Your task to perform on an android device: turn on priority inbox in the gmail app Image 0: 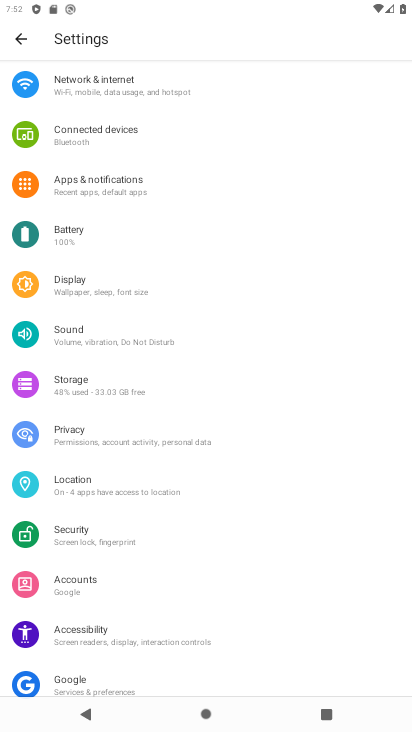
Step 0: press home button
Your task to perform on an android device: turn on priority inbox in the gmail app Image 1: 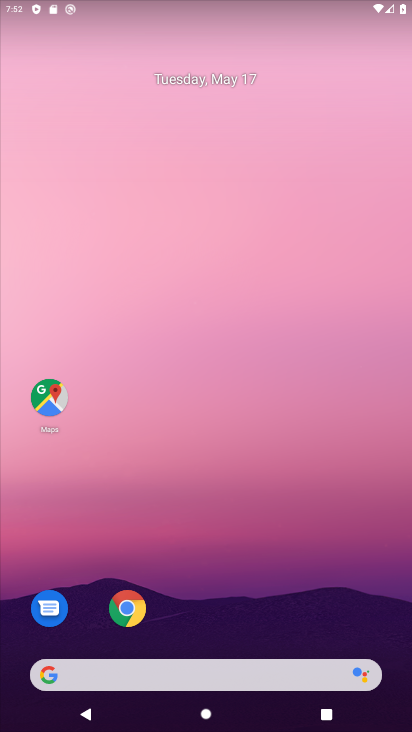
Step 1: drag from (166, 650) to (174, 412)
Your task to perform on an android device: turn on priority inbox in the gmail app Image 2: 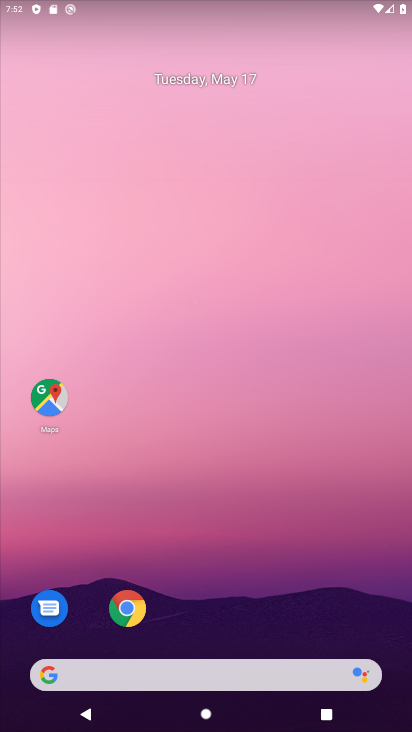
Step 2: drag from (151, 629) to (130, 373)
Your task to perform on an android device: turn on priority inbox in the gmail app Image 3: 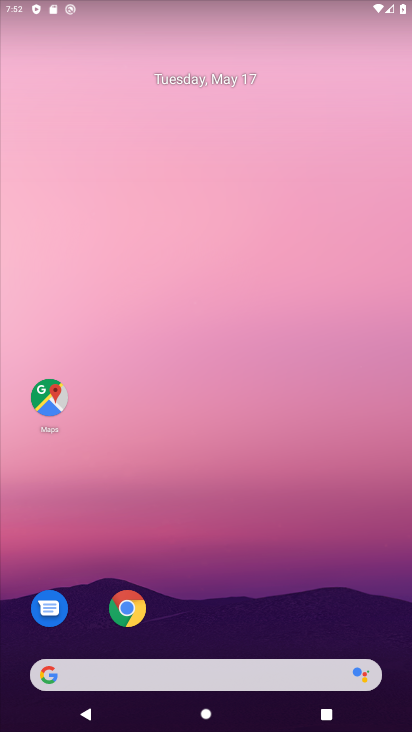
Step 3: drag from (221, 644) to (212, 320)
Your task to perform on an android device: turn on priority inbox in the gmail app Image 4: 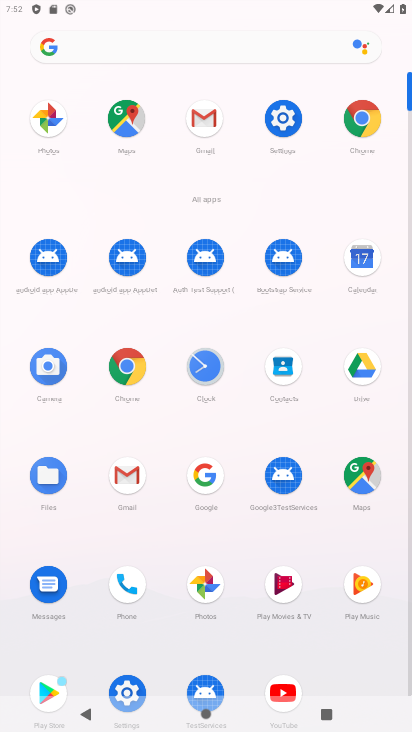
Step 4: click (132, 475)
Your task to perform on an android device: turn on priority inbox in the gmail app Image 5: 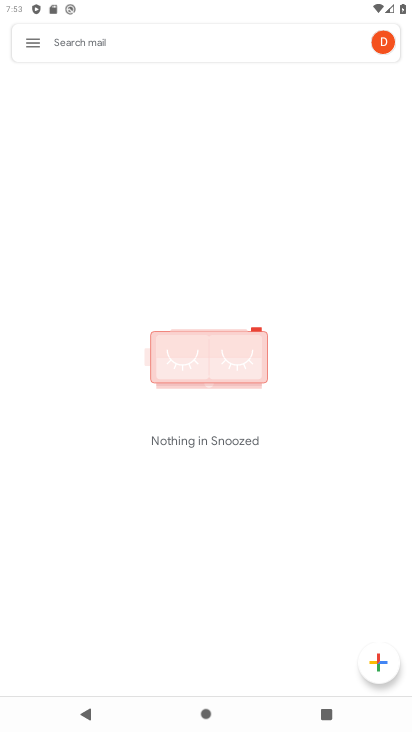
Step 5: click (30, 44)
Your task to perform on an android device: turn on priority inbox in the gmail app Image 6: 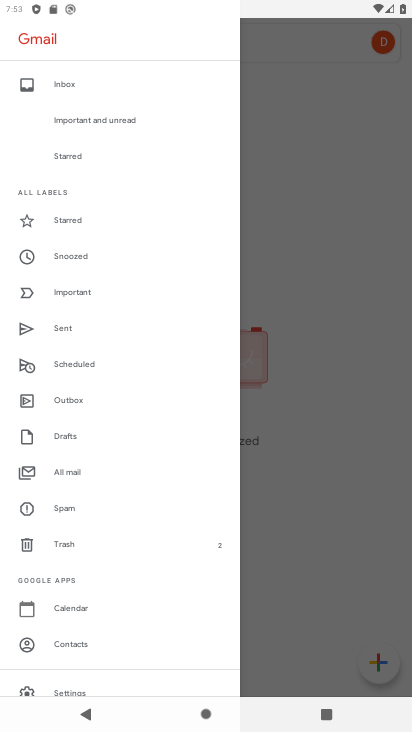
Step 6: click (35, 42)
Your task to perform on an android device: turn on priority inbox in the gmail app Image 7: 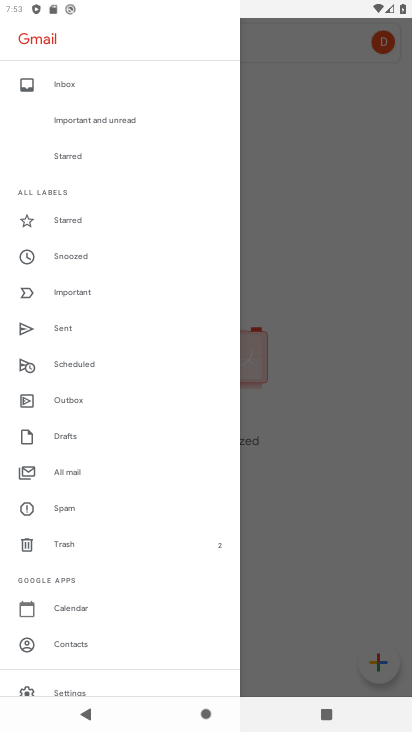
Step 7: click (68, 691)
Your task to perform on an android device: turn on priority inbox in the gmail app Image 8: 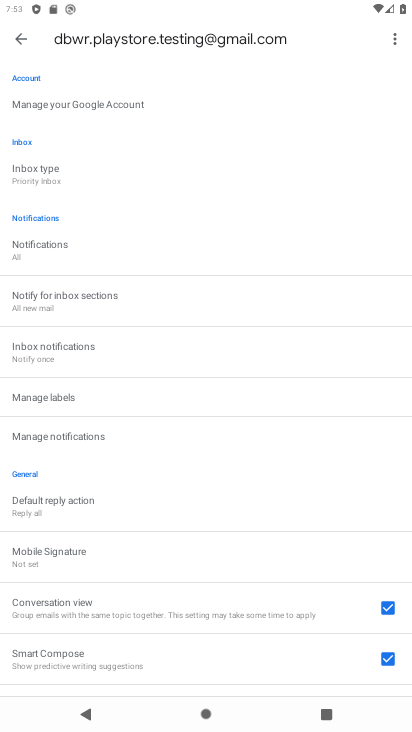
Step 8: click (29, 177)
Your task to perform on an android device: turn on priority inbox in the gmail app Image 9: 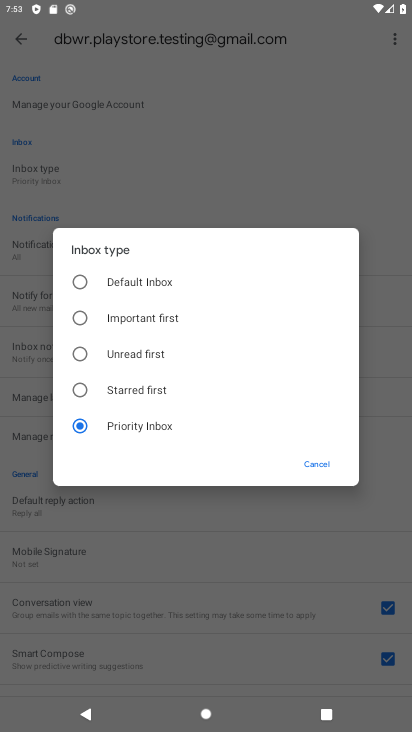
Step 9: click (311, 465)
Your task to perform on an android device: turn on priority inbox in the gmail app Image 10: 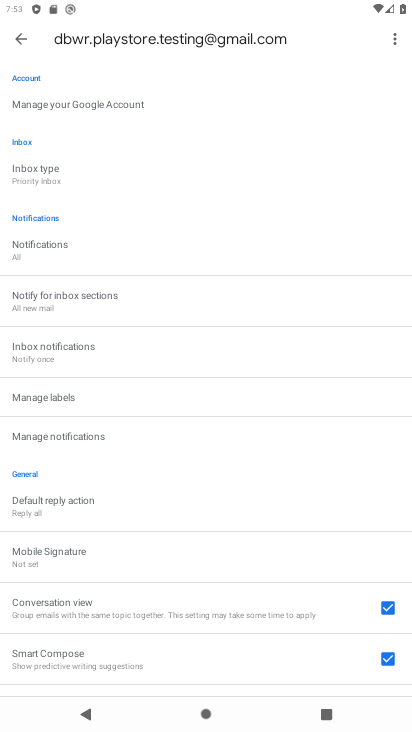
Step 10: task complete